Your task to perform on an android device: change notification settings in the gmail app Image 0: 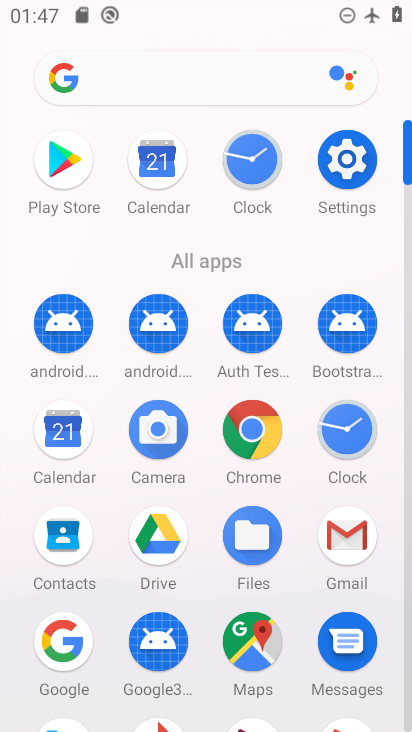
Step 0: click (346, 533)
Your task to perform on an android device: change notification settings in the gmail app Image 1: 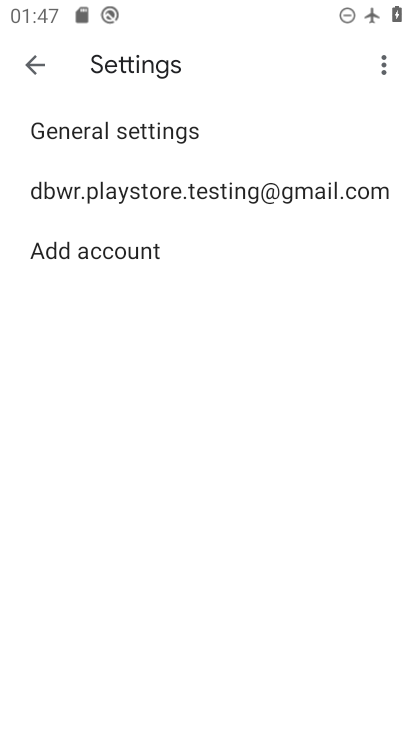
Step 1: click (145, 191)
Your task to perform on an android device: change notification settings in the gmail app Image 2: 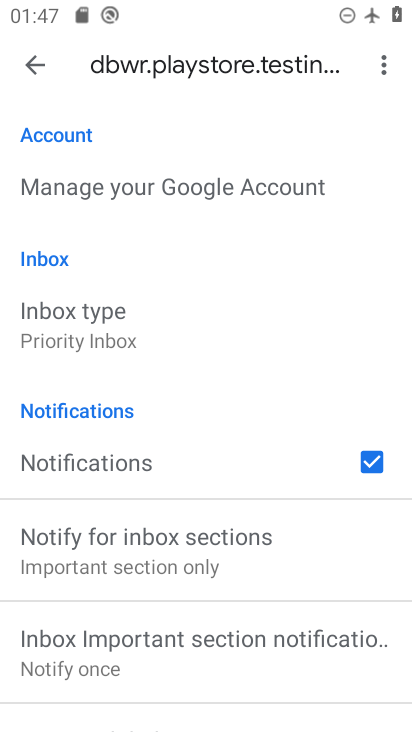
Step 2: drag from (222, 605) to (207, 177)
Your task to perform on an android device: change notification settings in the gmail app Image 3: 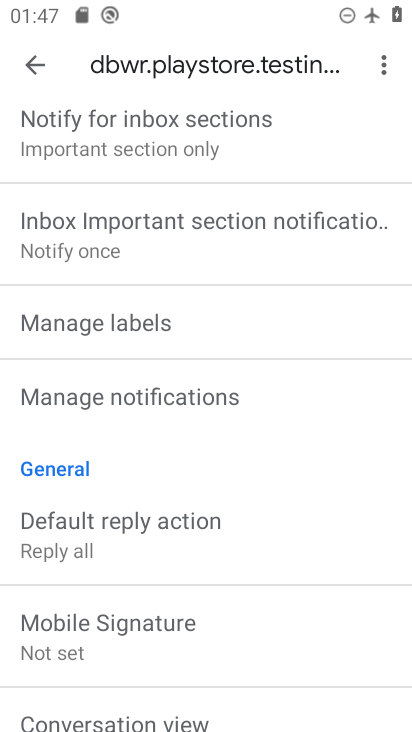
Step 3: click (140, 413)
Your task to perform on an android device: change notification settings in the gmail app Image 4: 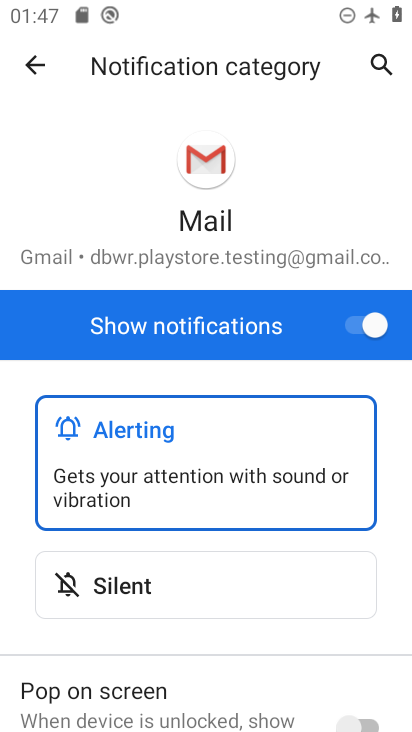
Step 4: drag from (243, 599) to (289, 270)
Your task to perform on an android device: change notification settings in the gmail app Image 5: 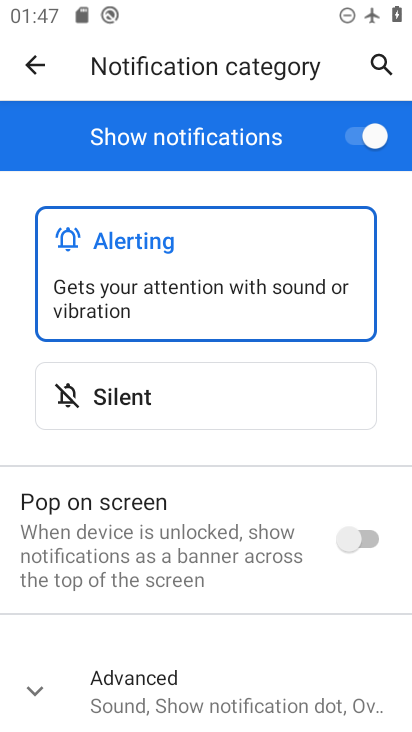
Step 5: click (366, 537)
Your task to perform on an android device: change notification settings in the gmail app Image 6: 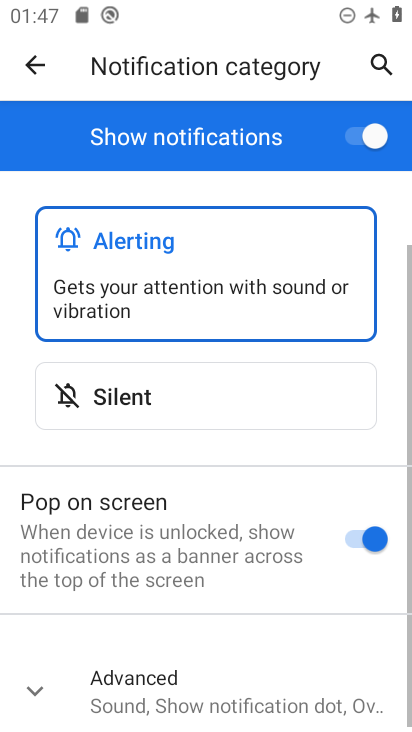
Step 6: drag from (155, 590) to (185, 308)
Your task to perform on an android device: change notification settings in the gmail app Image 7: 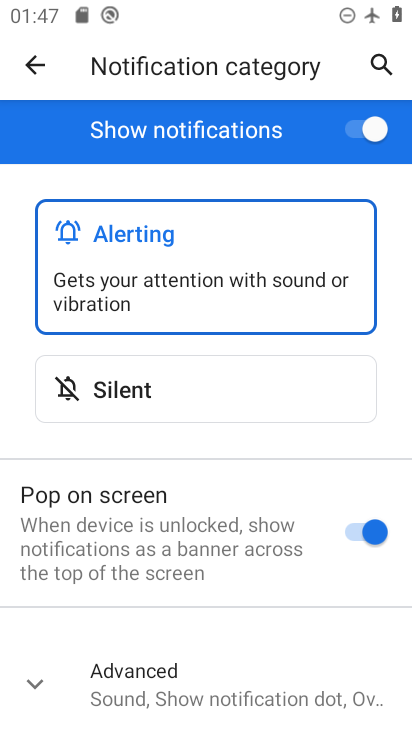
Step 7: click (44, 690)
Your task to perform on an android device: change notification settings in the gmail app Image 8: 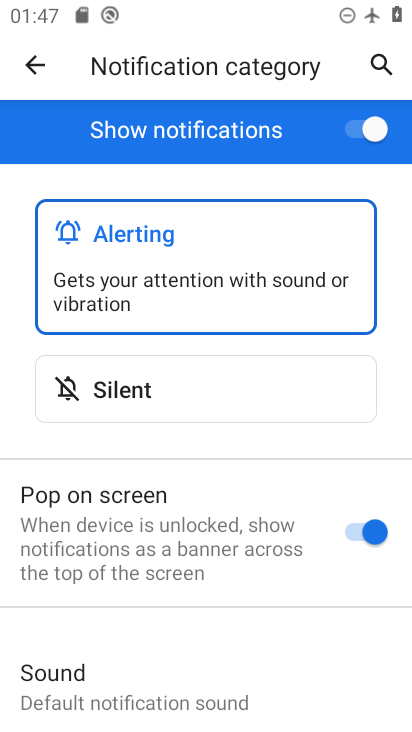
Step 8: drag from (252, 664) to (282, 294)
Your task to perform on an android device: change notification settings in the gmail app Image 9: 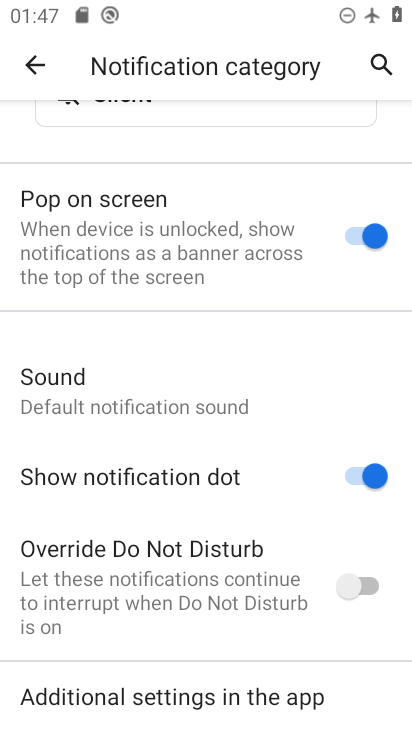
Step 9: click (364, 582)
Your task to perform on an android device: change notification settings in the gmail app Image 10: 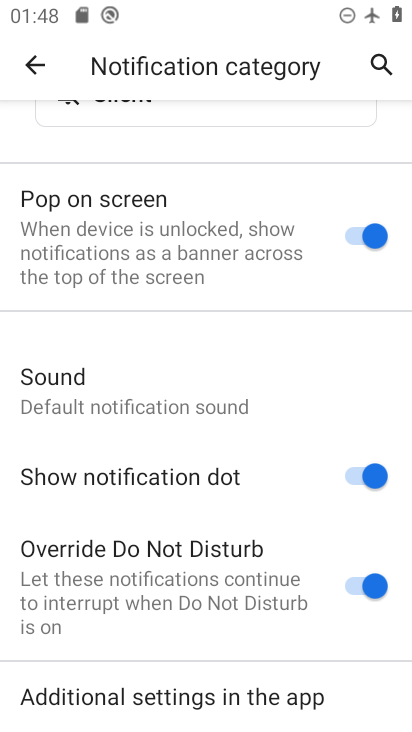
Step 10: task complete